Your task to perform on an android device: toggle javascript in the chrome app Image 0: 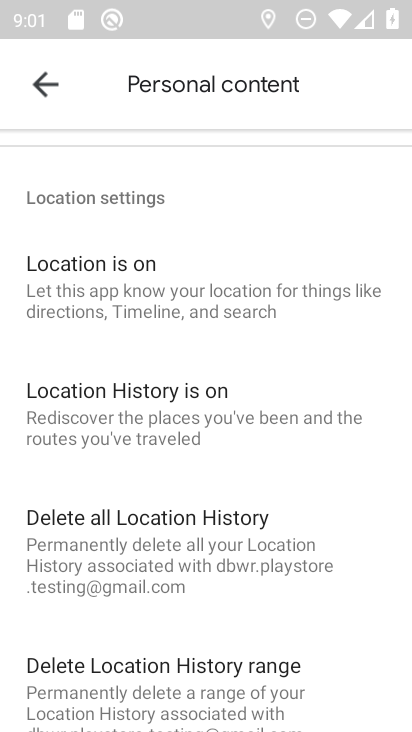
Step 0: press home button
Your task to perform on an android device: toggle javascript in the chrome app Image 1: 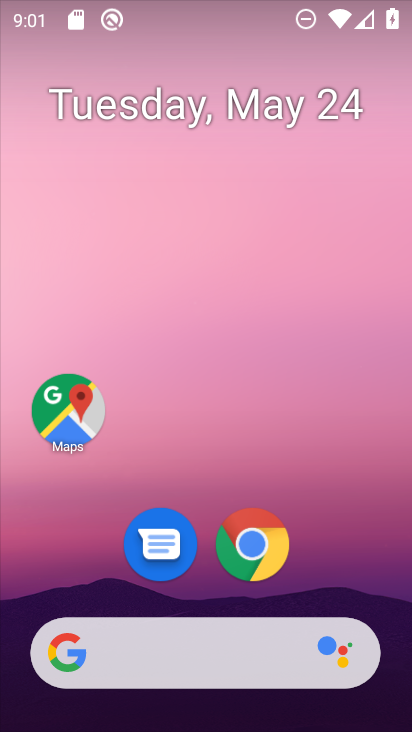
Step 1: drag from (378, 593) to (310, 16)
Your task to perform on an android device: toggle javascript in the chrome app Image 2: 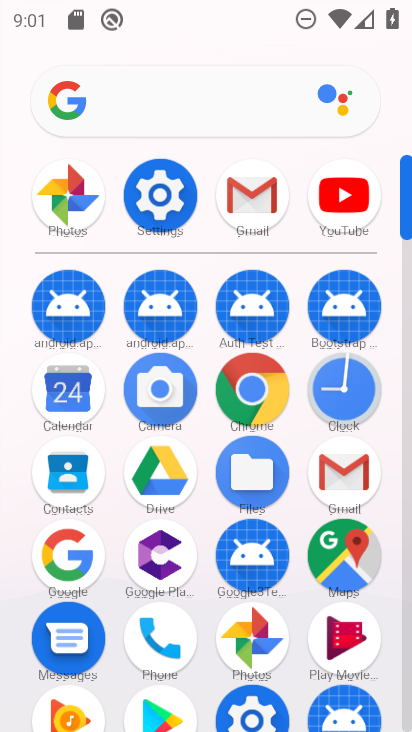
Step 2: click (262, 404)
Your task to perform on an android device: toggle javascript in the chrome app Image 3: 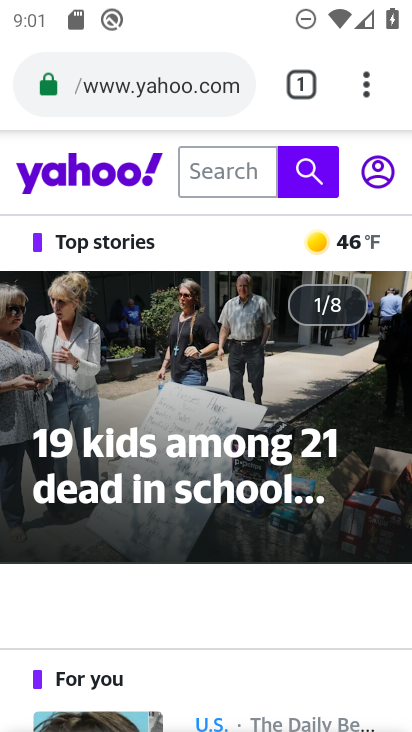
Step 3: click (378, 79)
Your task to perform on an android device: toggle javascript in the chrome app Image 4: 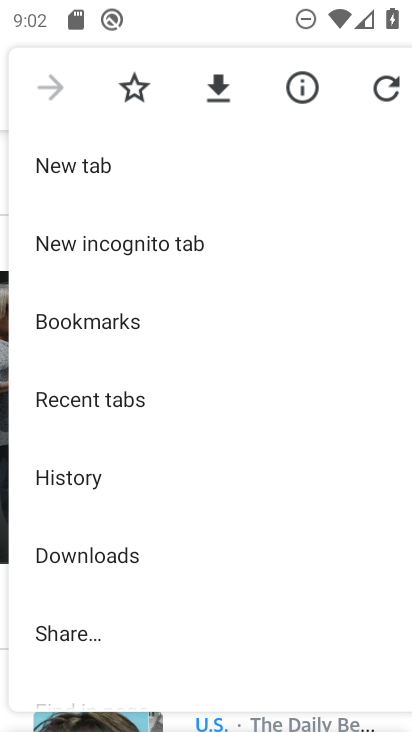
Step 4: drag from (206, 589) to (166, 141)
Your task to perform on an android device: toggle javascript in the chrome app Image 5: 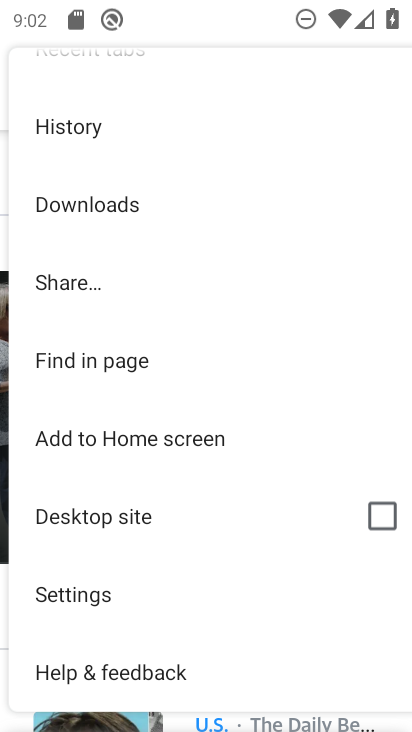
Step 5: drag from (87, 649) to (100, 414)
Your task to perform on an android device: toggle javascript in the chrome app Image 6: 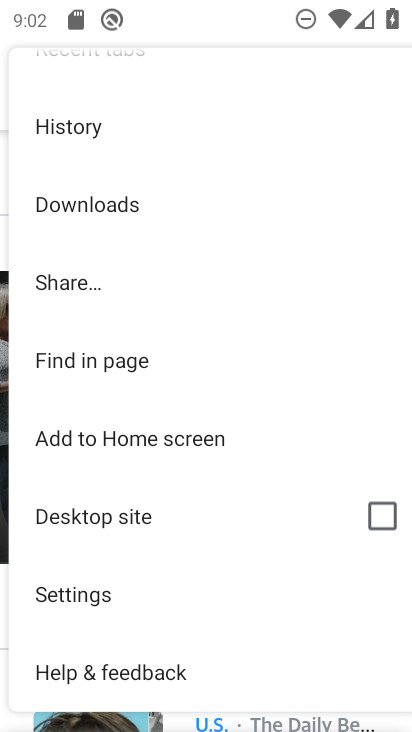
Step 6: click (93, 595)
Your task to perform on an android device: toggle javascript in the chrome app Image 7: 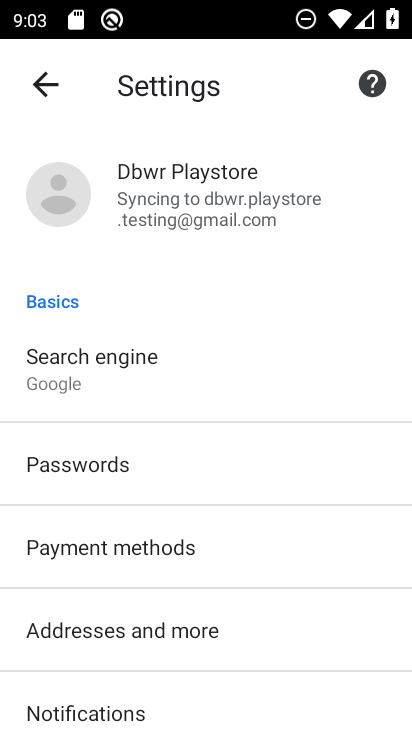
Step 7: drag from (211, 604) to (235, 63)
Your task to perform on an android device: toggle javascript in the chrome app Image 8: 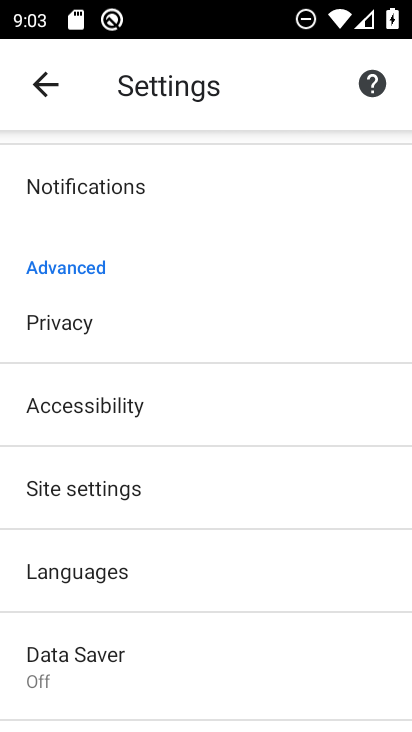
Step 8: drag from (132, 622) to (163, 278)
Your task to perform on an android device: toggle javascript in the chrome app Image 9: 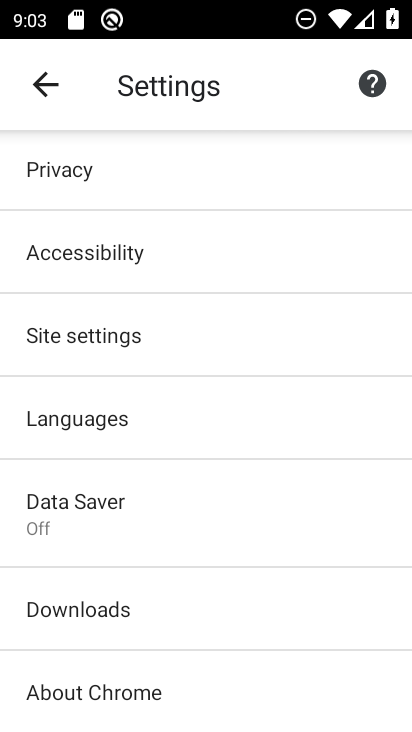
Step 9: click (128, 325)
Your task to perform on an android device: toggle javascript in the chrome app Image 10: 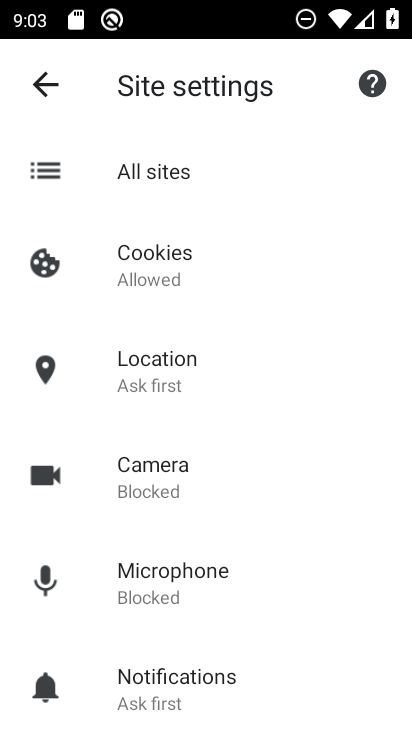
Step 10: drag from (184, 671) to (186, 197)
Your task to perform on an android device: toggle javascript in the chrome app Image 11: 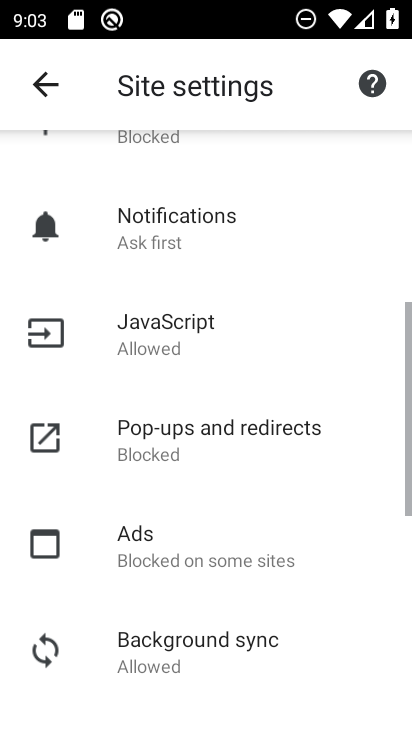
Step 11: click (201, 341)
Your task to perform on an android device: toggle javascript in the chrome app Image 12: 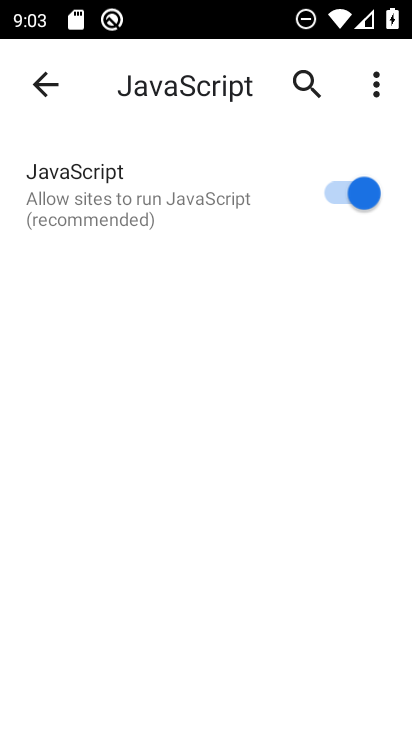
Step 12: click (340, 197)
Your task to perform on an android device: toggle javascript in the chrome app Image 13: 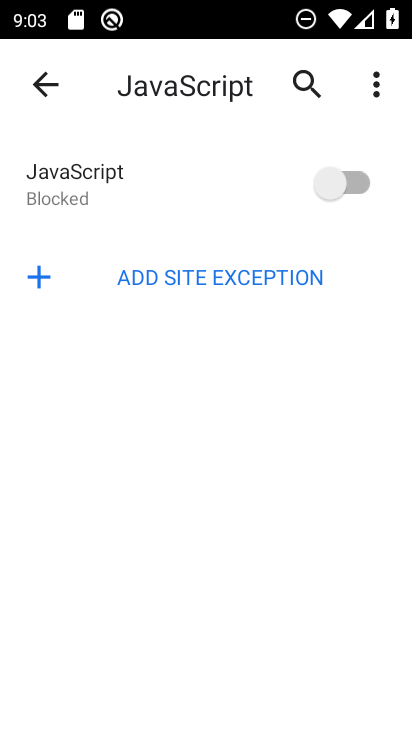
Step 13: task complete